Your task to perform on an android device: Open the Play Movies app and select the watchlist tab. Image 0: 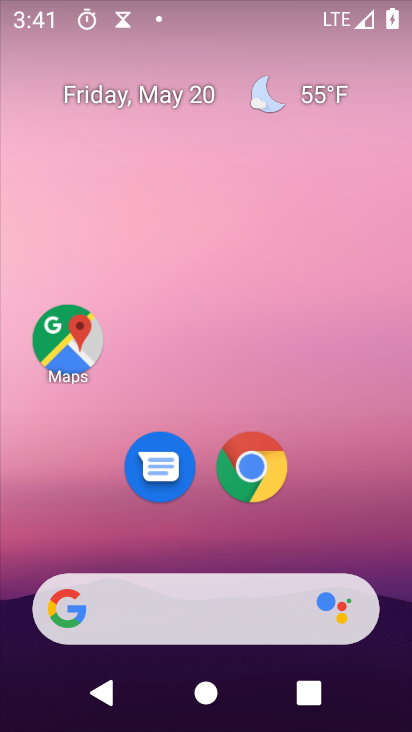
Step 0: drag from (225, 523) to (256, 21)
Your task to perform on an android device: Open the Play Movies app and select the watchlist tab. Image 1: 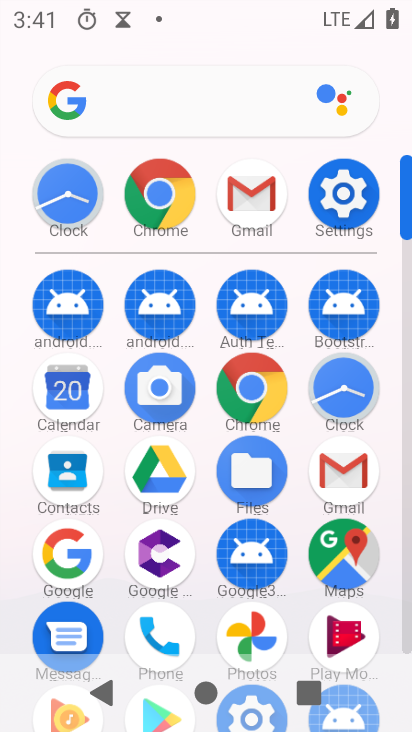
Step 1: click (343, 630)
Your task to perform on an android device: Open the Play Movies app and select the watchlist tab. Image 2: 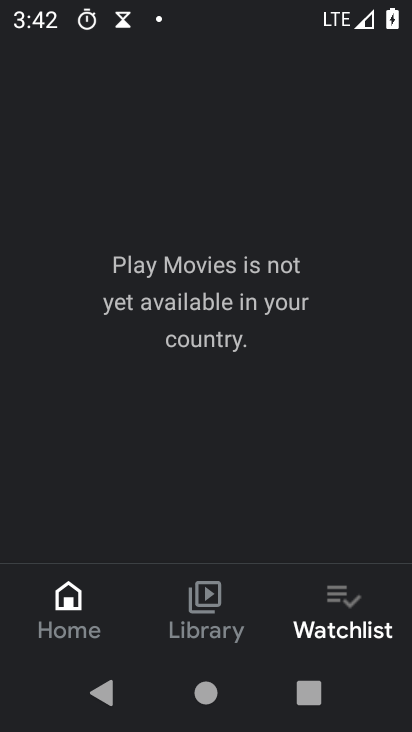
Step 2: task complete